Your task to perform on an android device: Go to display settings Image 0: 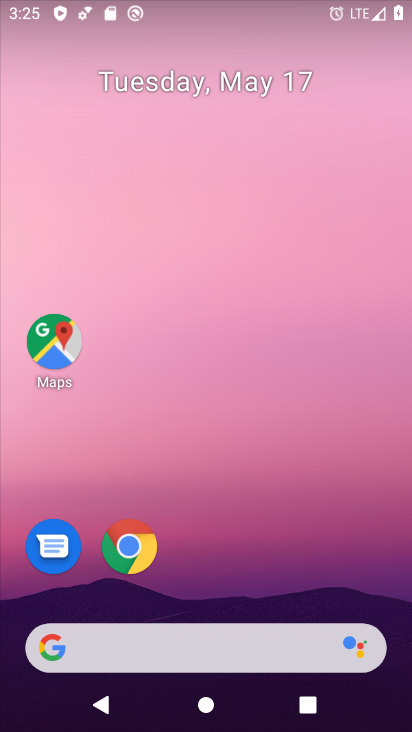
Step 0: press home button
Your task to perform on an android device: Go to display settings Image 1: 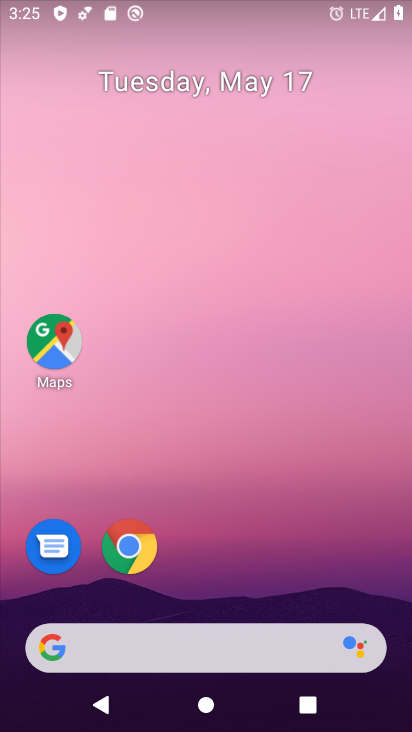
Step 1: drag from (263, 452) to (265, 60)
Your task to perform on an android device: Go to display settings Image 2: 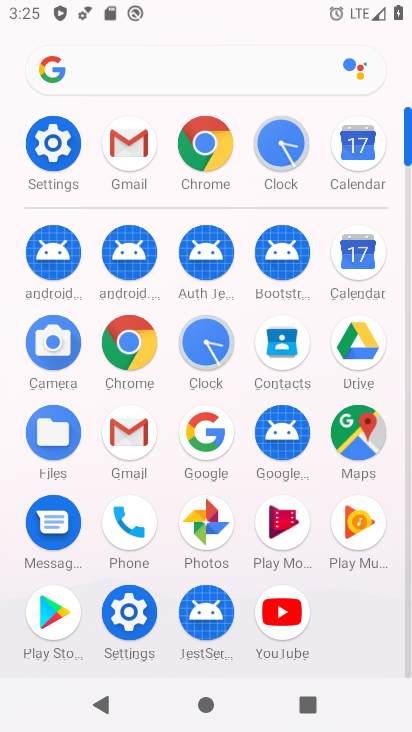
Step 2: click (57, 150)
Your task to perform on an android device: Go to display settings Image 3: 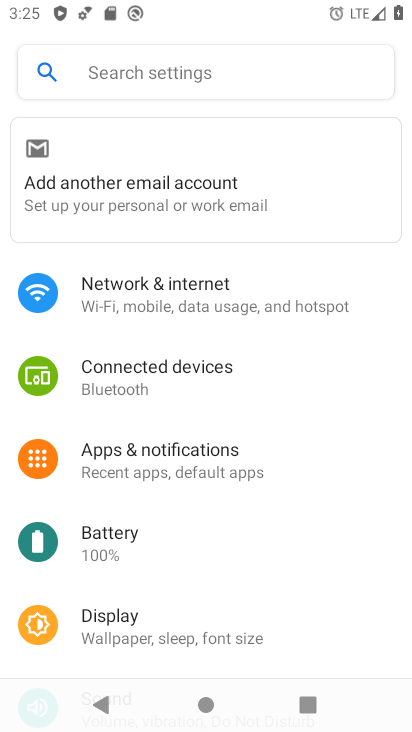
Step 3: click (128, 605)
Your task to perform on an android device: Go to display settings Image 4: 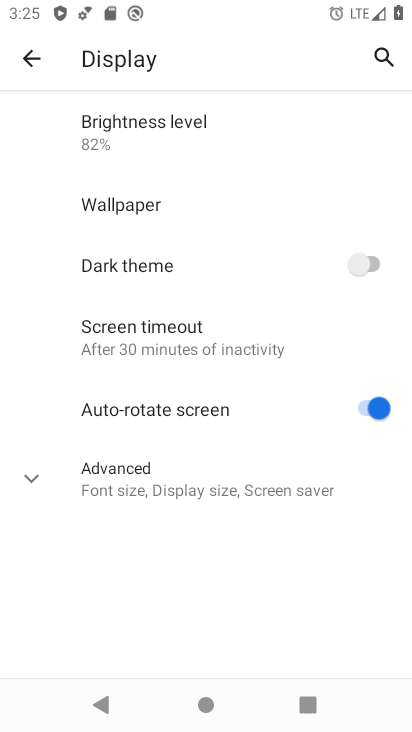
Step 4: task complete